Your task to perform on an android device: Go to settings Image 0: 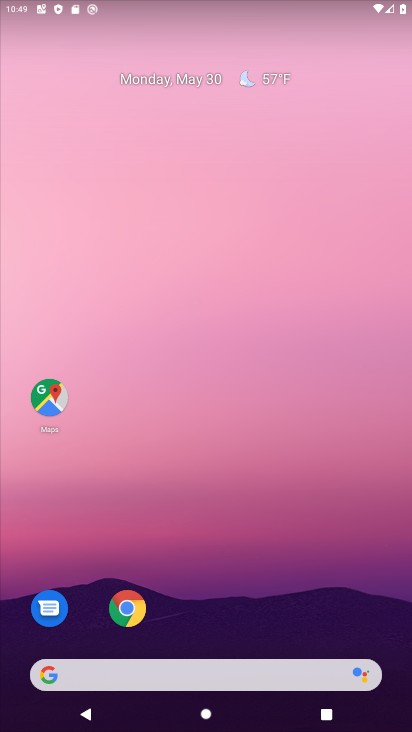
Step 0: drag from (263, 612) to (246, 16)
Your task to perform on an android device: Go to settings Image 1: 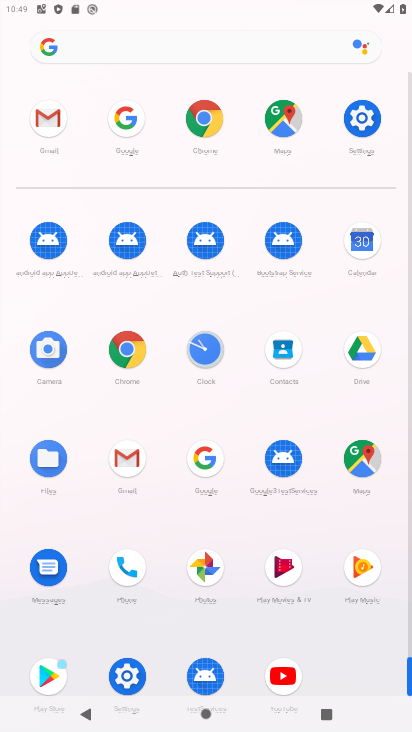
Step 1: drag from (0, 571) to (13, 267)
Your task to perform on an android device: Go to settings Image 2: 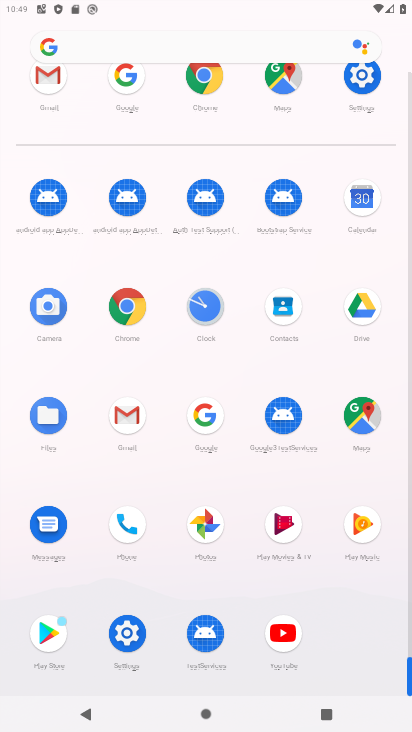
Step 2: click (126, 630)
Your task to perform on an android device: Go to settings Image 3: 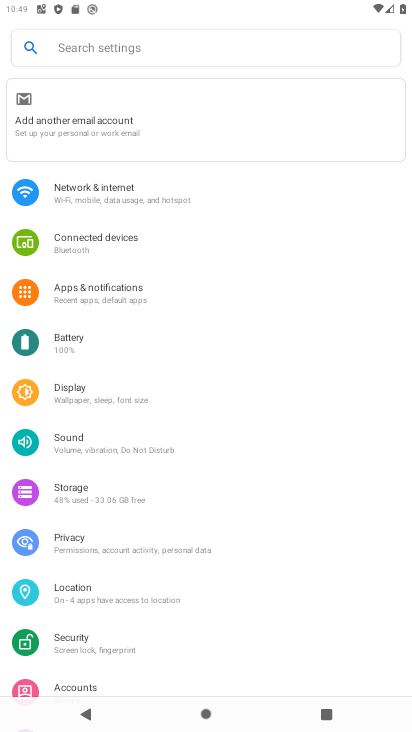
Step 3: task complete